Your task to perform on an android device: Set the phone to "Do not disturb". Image 0: 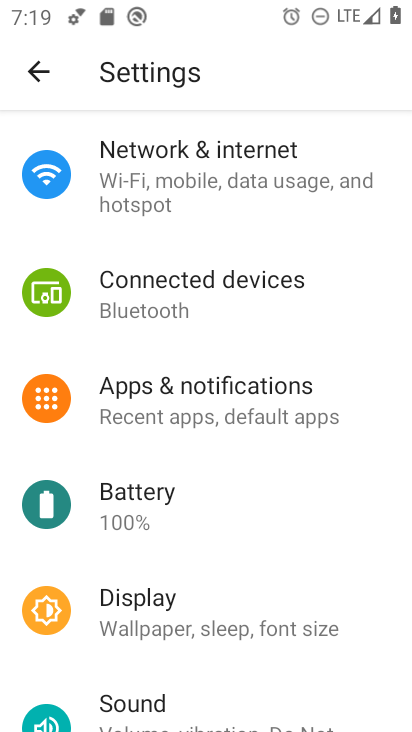
Step 0: press home button
Your task to perform on an android device: Set the phone to "Do not disturb". Image 1: 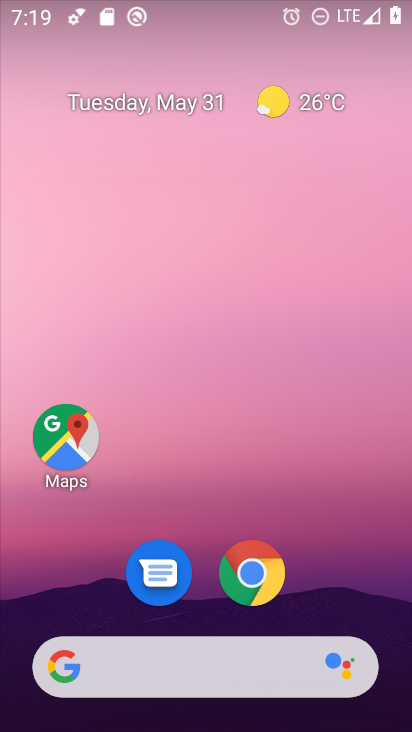
Step 1: task complete